Your task to perform on an android device: Go to location settings Image 0: 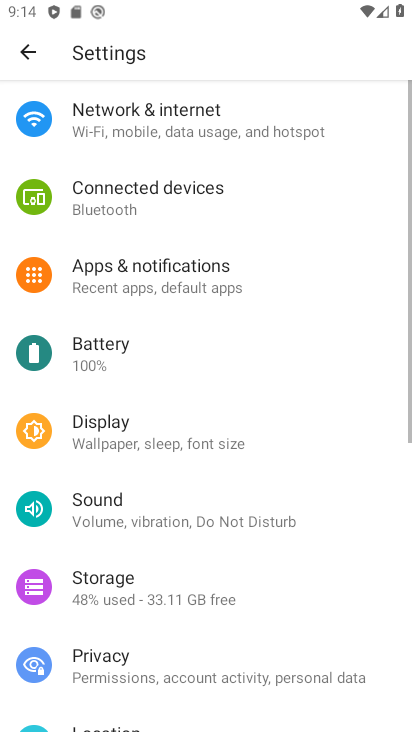
Step 0: drag from (129, 604) to (118, 261)
Your task to perform on an android device: Go to location settings Image 1: 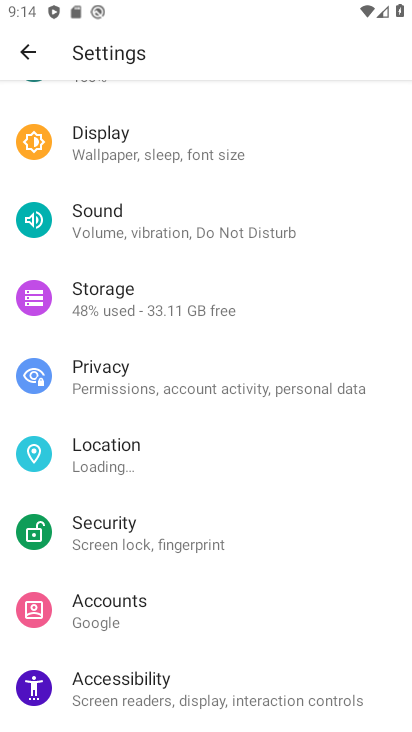
Step 1: click (129, 460)
Your task to perform on an android device: Go to location settings Image 2: 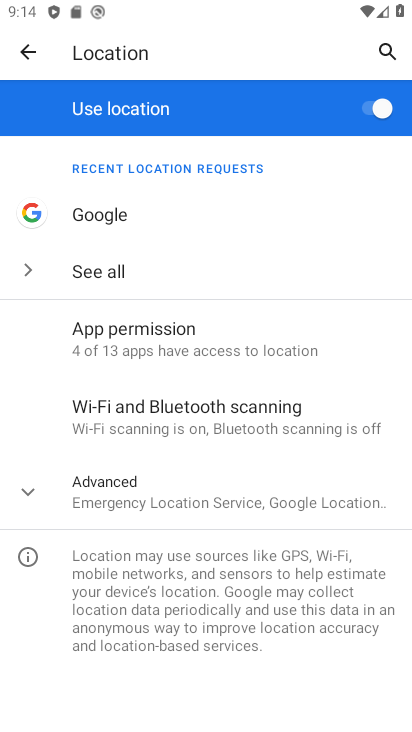
Step 2: task complete